Your task to perform on an android device: open a bookmark in the chrome app Image 0: 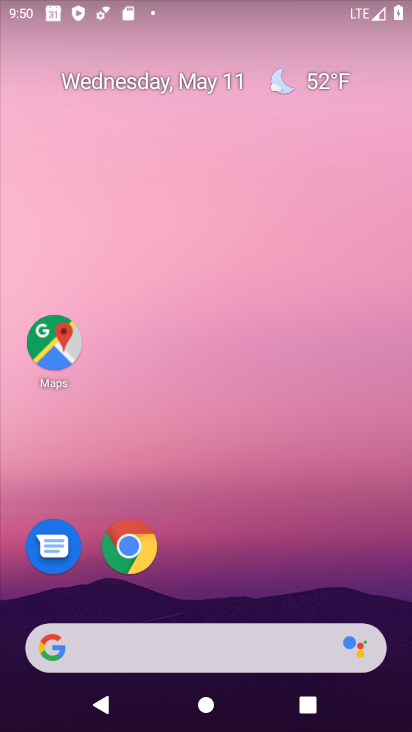
Step 0: click (133, 557)
Your task to perform on an android device: open a bookmark in the chrome app Image 1: 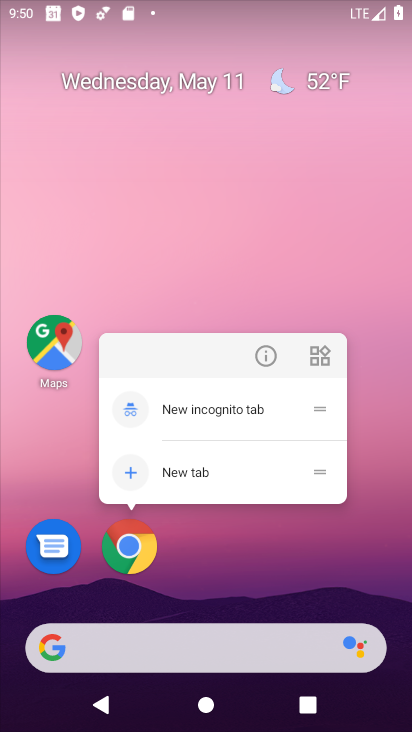
Step 1: click (133, 557)
Your task to perform on an android device: open a bookmark in the chrome app Image 2: 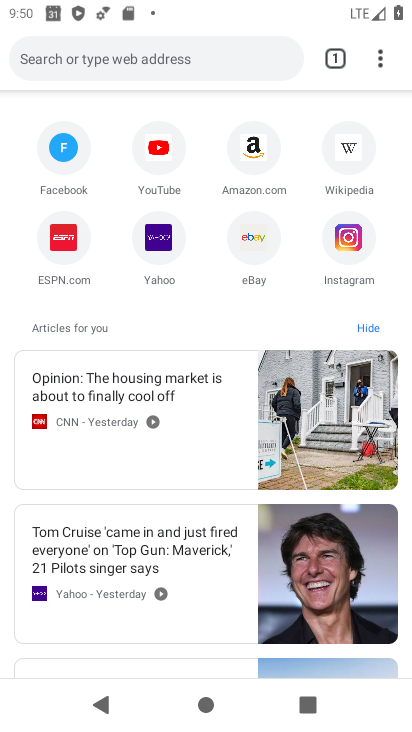
Step 2: click (373, 62)
Your task to perform on an android device: open a bookmark in the chrome app Image 3: 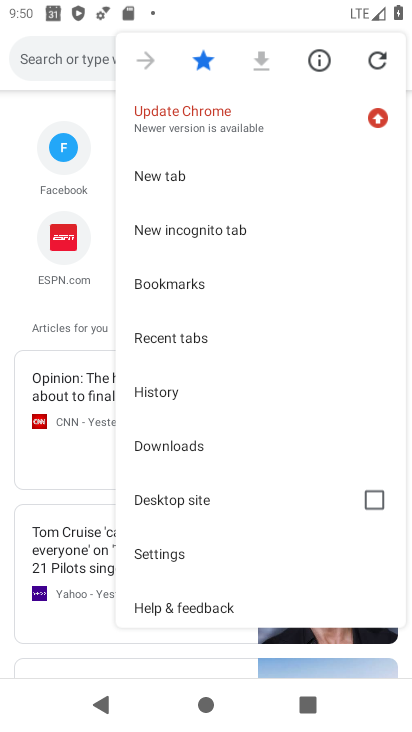
Step 3: click (206, 294)
Your task to perform on an android device: open a bookmark in the chrome app Image 4: 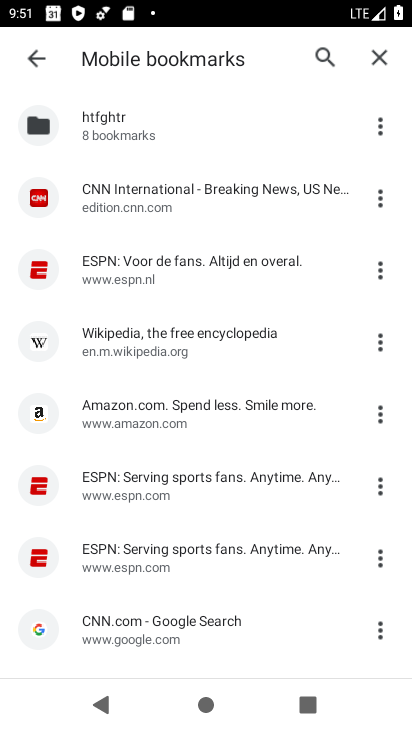
Step 4: click (204, 203)
Your task to perform on an android device: open a bookmark in the chrome app Image 5: 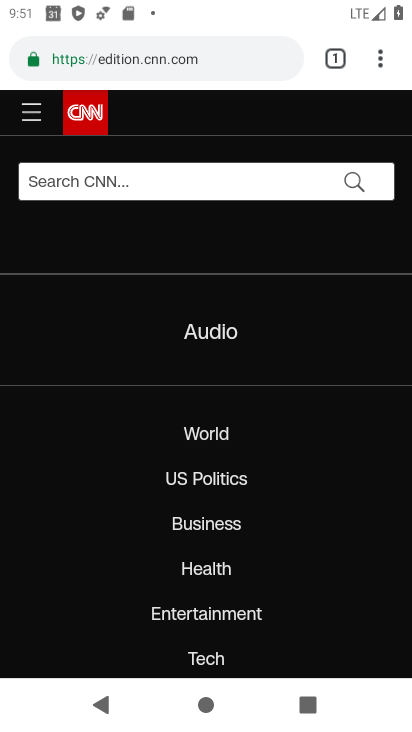
Step 5: task complete